Your task to perform on an android device: turn off priority inbox in the gmail app Image 0: 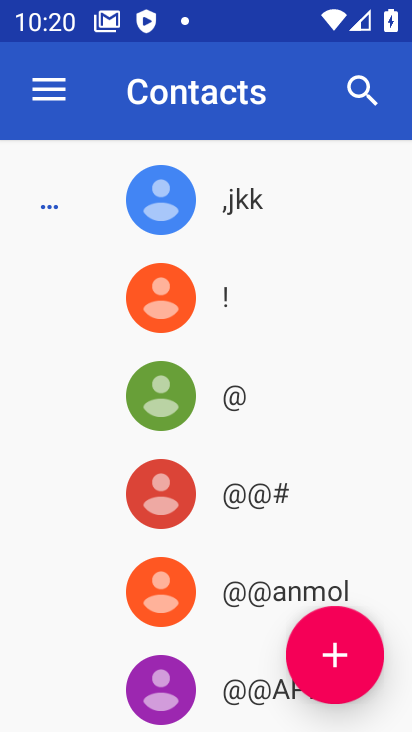
Step 0: press home button
Your task to perform on an android device: turn off priority inbox in the gmail app Image 1: 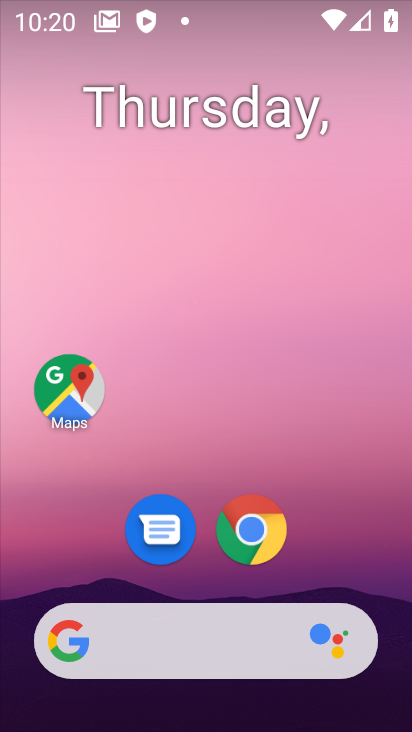
Step 1: drag from (183, 513) to (228, 0)
Your task to perform on an android device: turn off priority inbox in the gmail app Image 2: 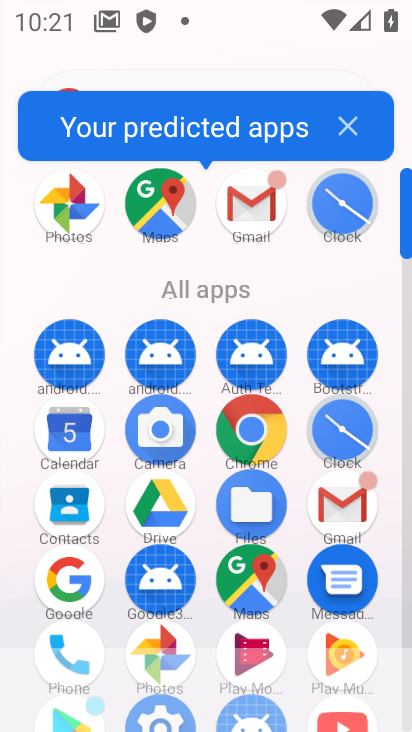
Step 2: click (243, 207)
Your task to perform on an android device: turn off priority inbox in the gmail app Image 3: 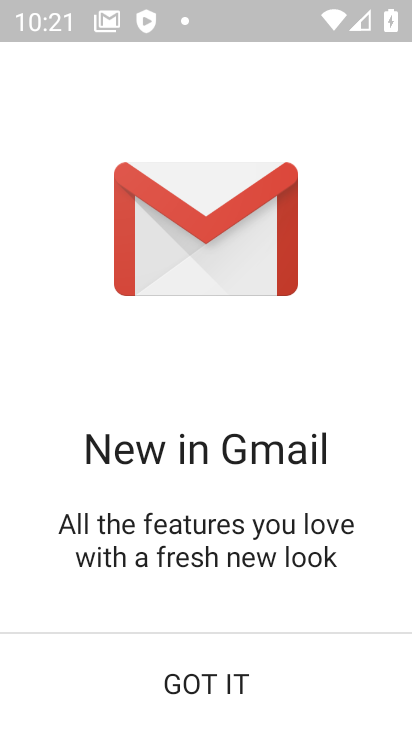
Step 3: click (225, 677)
Your task to perform on an android device: turn off priority inbox in the gmail app Image 4: 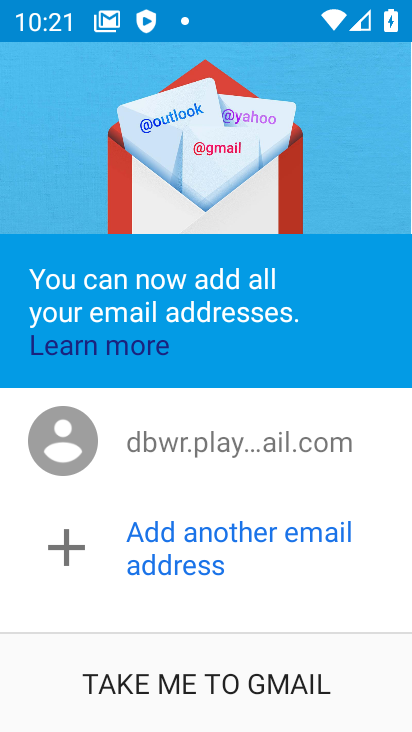
Step 4: click (225, 677)
Your task to perform on an android device: turn off priority inbox in the gmail app Image 5: 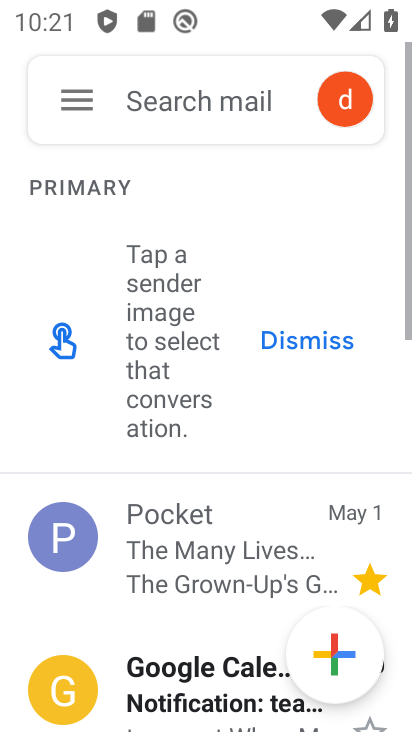
Step 5: click (79, 104)
Your task to perform on an android device: turn off priority inbox in the gmail app Image 6: 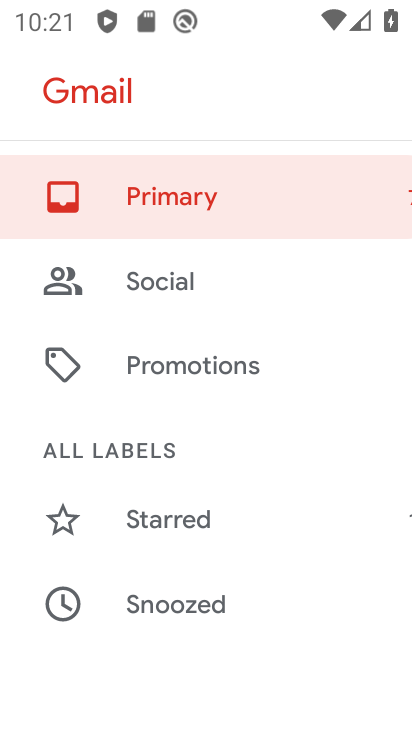
Step 6: drag from (171, 543) to (223, 127)
Your task to perform on an android device: turn off priority inbox in the gmail app Image 7: 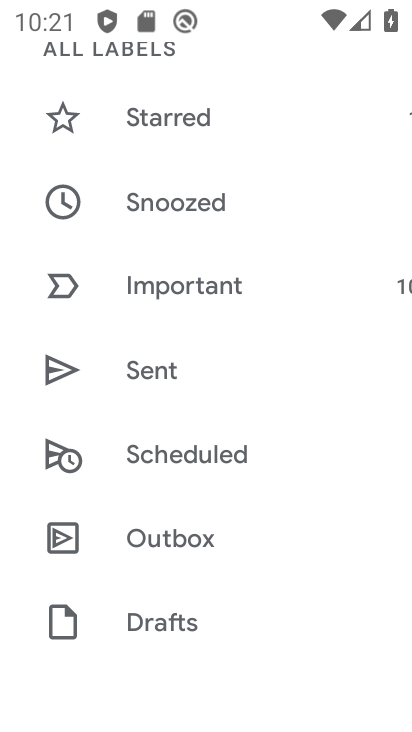
Step 7: drag from (195, 608) to (229, 172)
Your task to perform on an android device: turn off priority inbox in the gmail app Image 8: 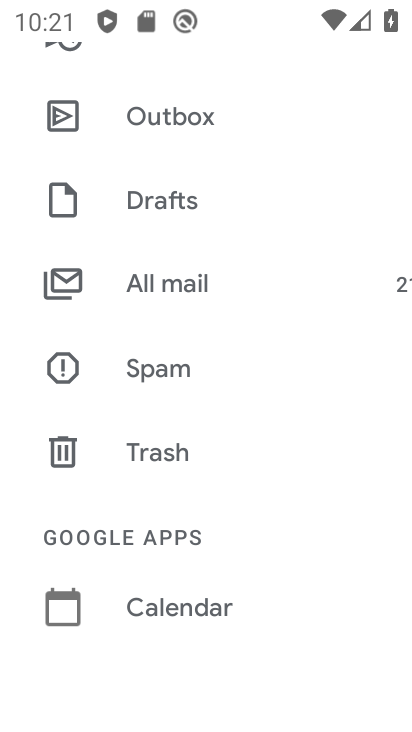
Step 8: drag from (188, 591) to (234, 165)
Your task to perform on an android device: turn off priority inbox in the gmail app Image 9: 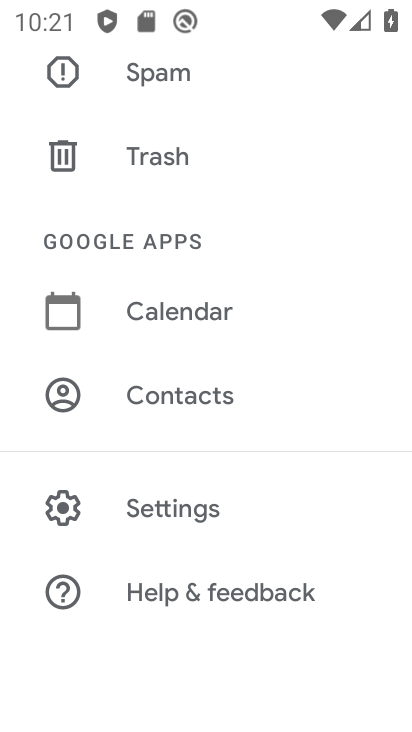
Step 9: click (193, 516)
Your task to perform on an android device: turn off priority inbox in the gmail app Image 10: 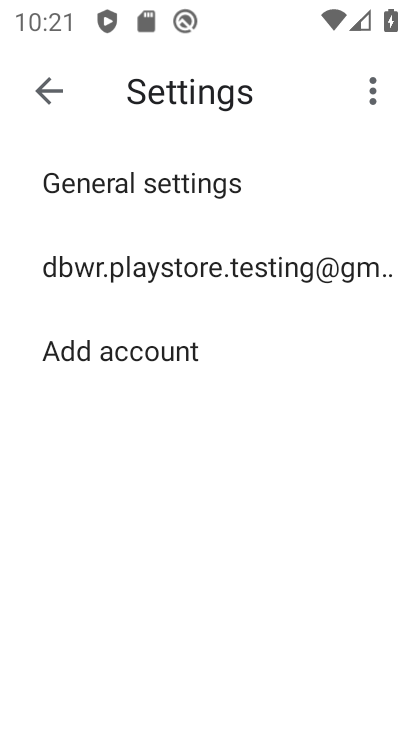
Step 10: click (190, 261)
Your task to perform on an android device: turn off priority inbox in the gmail app Image 11: 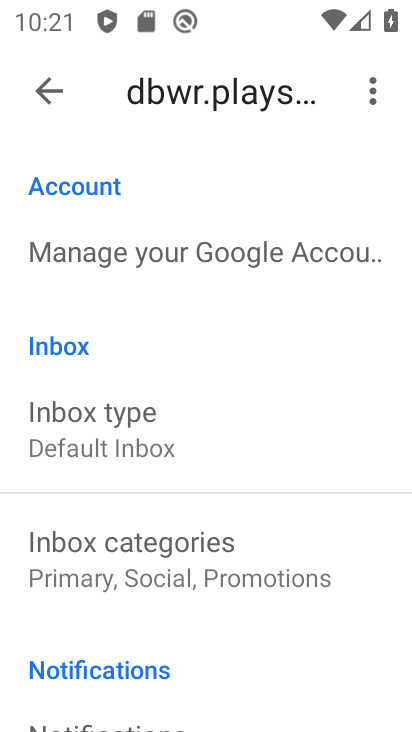
Step 11: click (121, 425)
Your task to perform on an android device: turn off priority inbox in the gmail app Image 12: 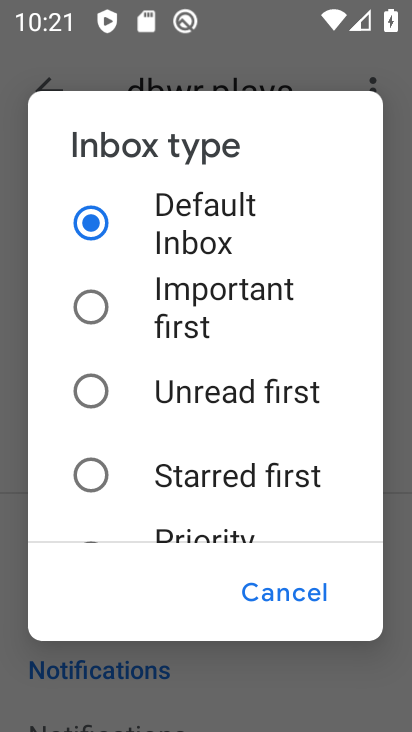
Step 12: task complete